Your task to perform on an android device: What's the news about the US economy? Image 0: 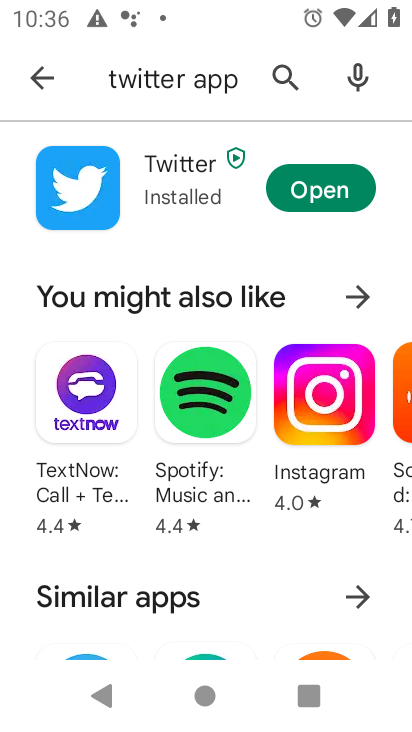
Step 0: drag from (0, 0) to (386, 292)
Your task to perform on an android device: What's the news about the US economy? Image 1: 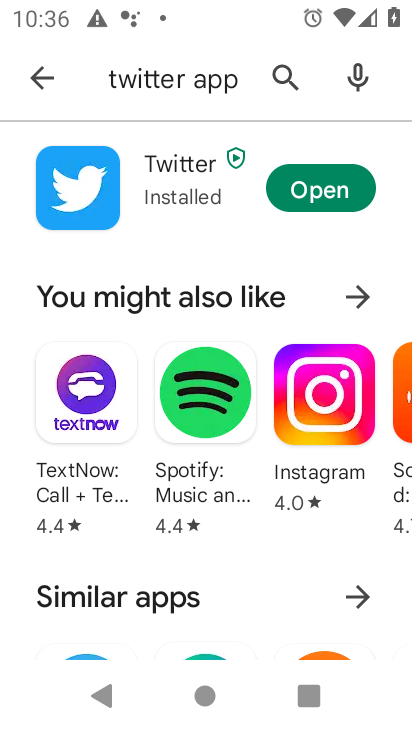
Step 1: click (38, 87)
Your task to perform on an android device: What's the news about the US economy? Image 2: 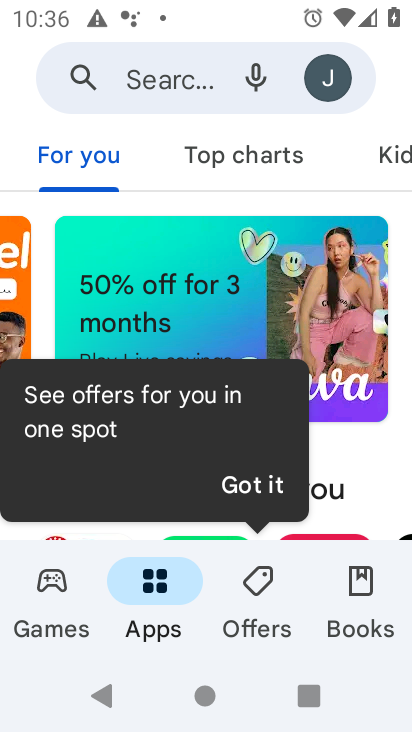
Step 2: click (126, 69)
Your task to perform on an android device: What's the news about the US economy? Image 3: 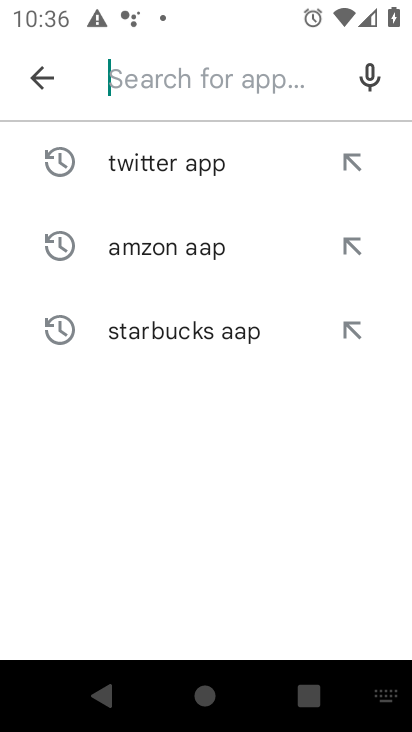
Step 3: press home button
Your task to perform on an android device: What's the news about the US economy? Image 4: 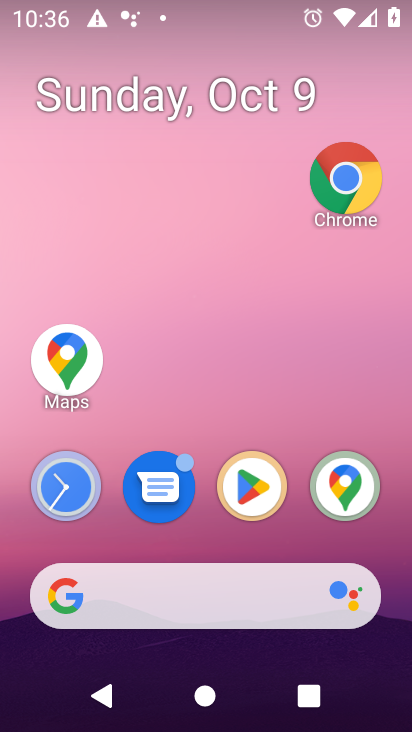
Step 4: drag from (213, 573) to (231, 6)
Your task to perform on an android device: What's the news about the US economy? Image 5: 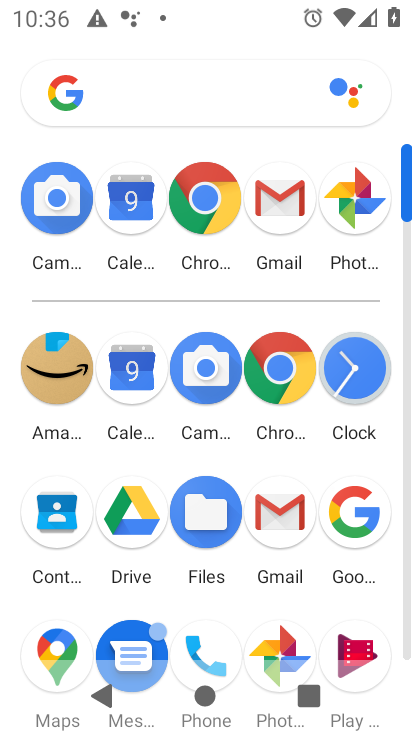
Step 5: click (354, 506)
Your task to perform on an android device: What's the news about the US economy? Image 6: 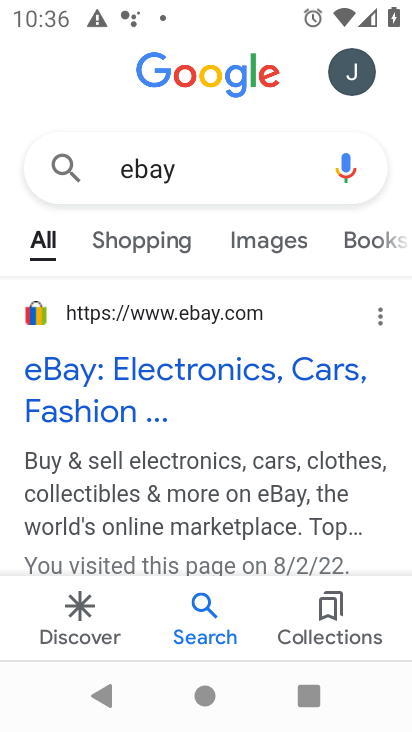
Step 6: click (233, 174)
Your task to perform on an android device: What's the news about the US economy? Image 7: 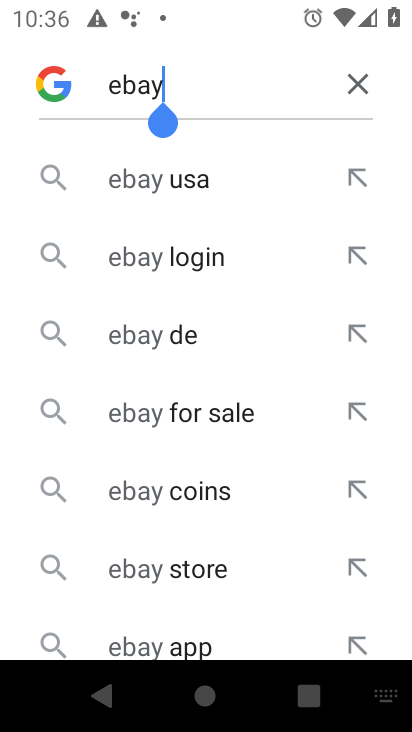
Step 7: click (355, 78)
Your task to perform on an android device: What's the news about the US economy? Image 8: 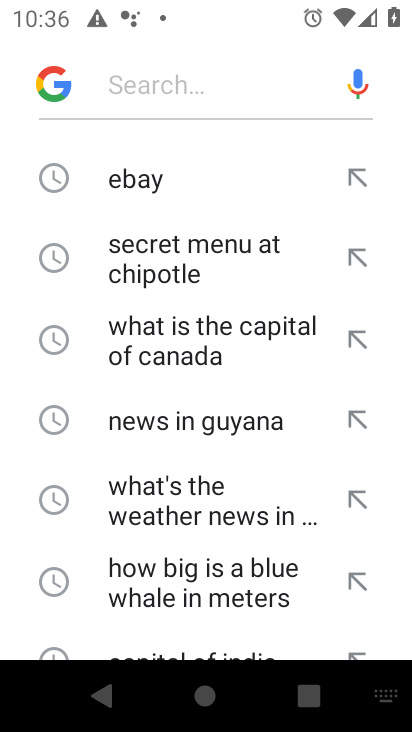
Step 8: type "Twitter app"
Your task to perform on an android device: What's the news about the US economy? Image 9: 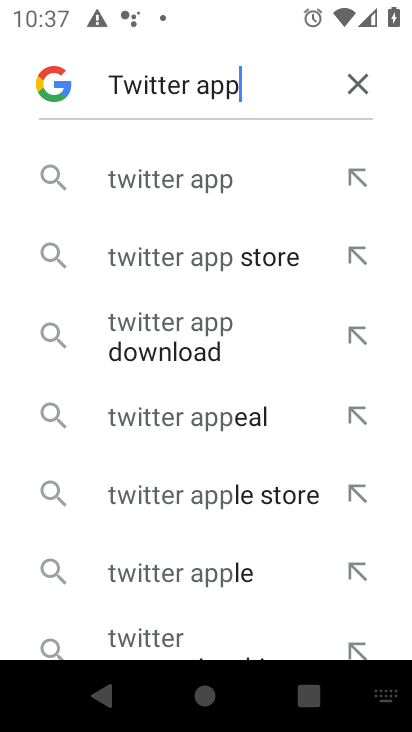
Step 9: click (348, 88)
Your task to perform on an android device: What's the news about the US economy? Image 10: 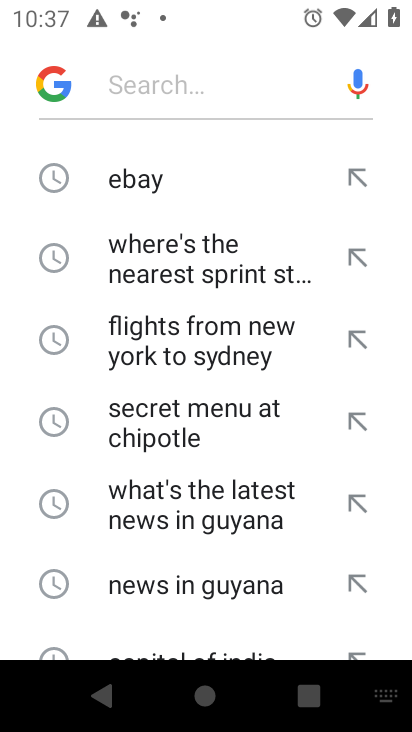
Step 10: type "news about the US economy"
Your task to perform on an android device: What's the news about the US economy? Image 11: 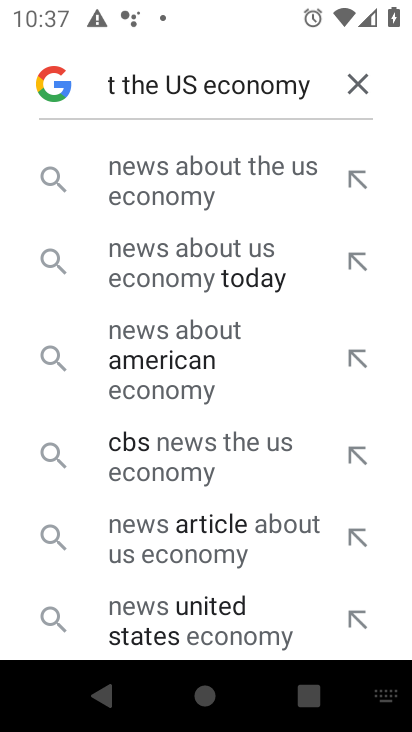
Step 11: click (243, 190)
Your task to perform on an android device: What's the news about the US economy? Image 12: 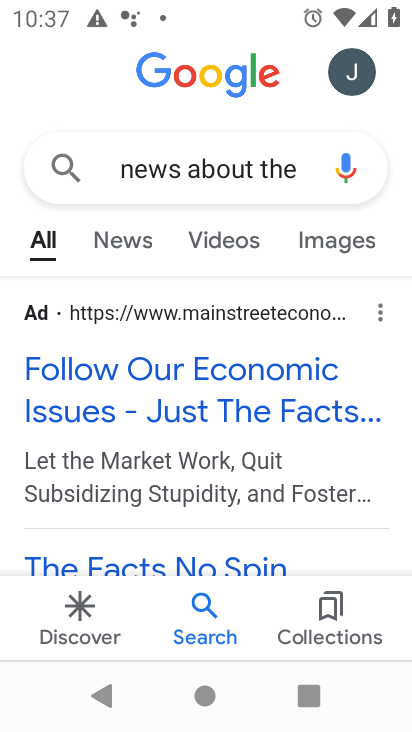
Step 12: click (135, 241)
Your task to perform on an android device: What's the news about the US economy? Image 13: 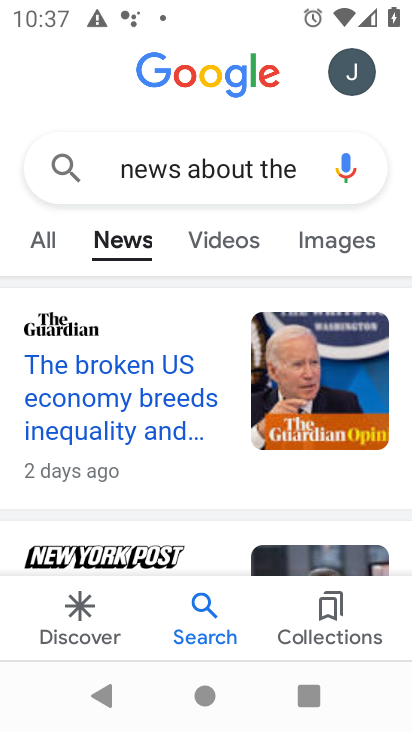
Step 13: task complete